Your task to perform on an android device: add a label to a message in the gmail app Image 0: 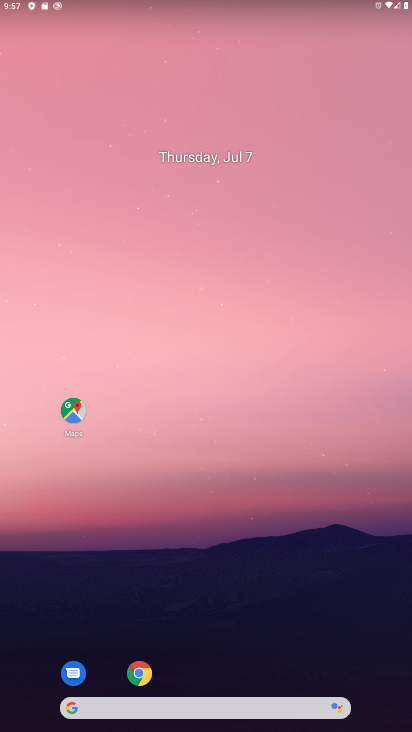
Step 0: drag from (206, 578) to (245, 77)
Your task to perform on an android device: add a label to a message in the gmail app Image 1: 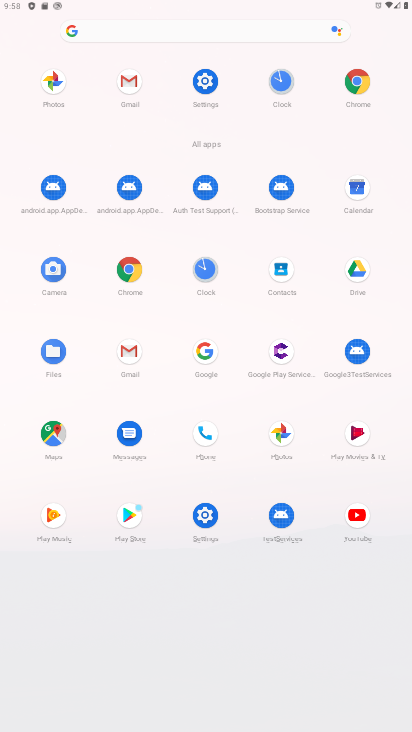
Step 1: click (135, 354)
Your task to perform on an android device: add a label to a message in the gmail app Image 2: 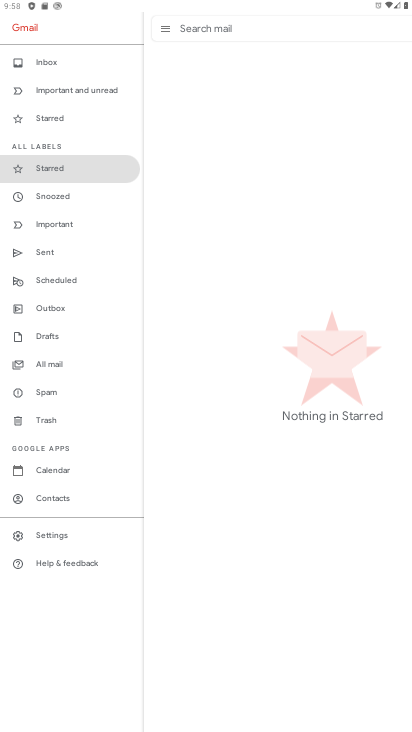
Step 2: click (50, 56)
Your task to perform on an android device: add a label to a message in the gmail app Image 3: 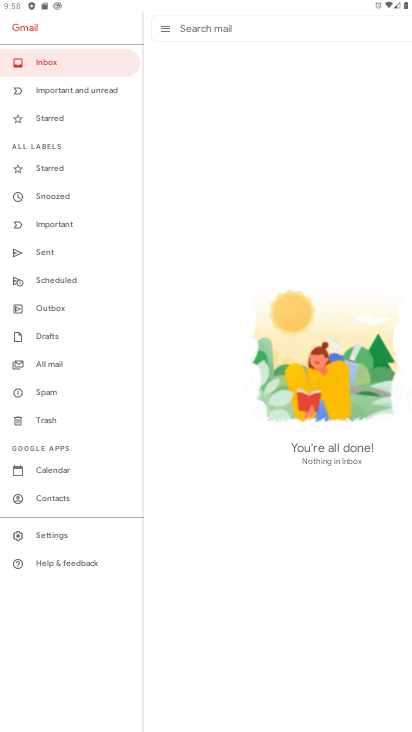
Step 3: task complete